Your task to perform on an android device: Go to Amazon Image 0: 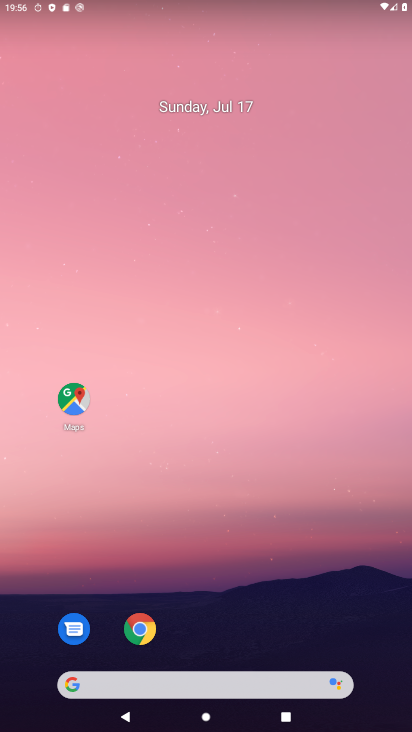
Step 0: drag from (278, 649) to (296, 141)
Your task to perform on an android device: Go to Amazon Image 1: 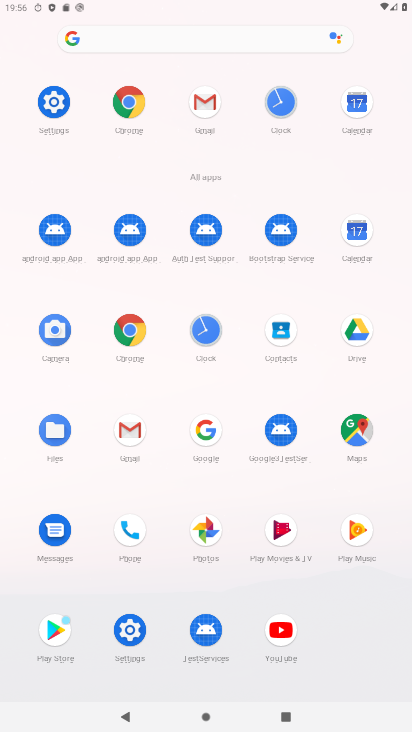
Step 1: click (121, 328)
Your task to perform on an android device: Go to Amazon Image 2: 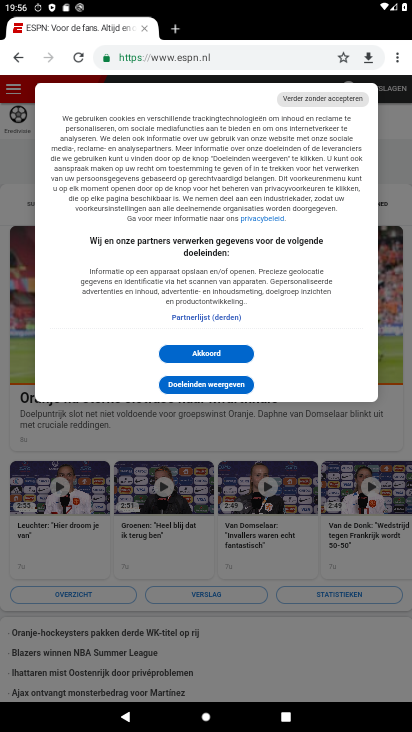
Step 2: click (242, 52)
Your task to perform on an android device: Go to Amazon Image 3: 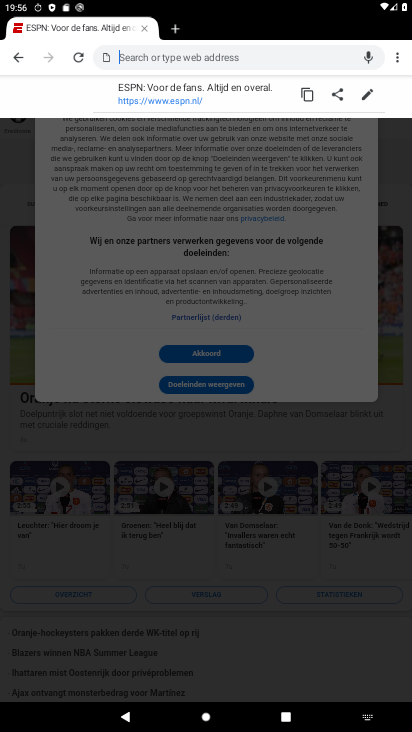
Step 3: type "amazon"
Your task to perform on an android device: Go to Amazon Image 4: 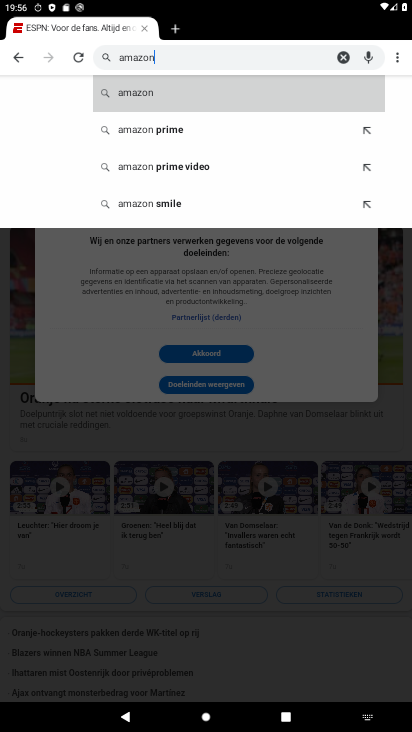
Step 4: click (149, 94)
Your task to perform on an android device: Go to Amazon Image 5: 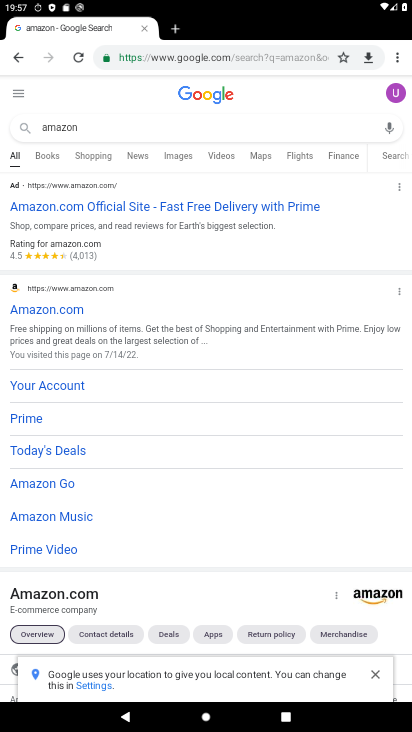
Step 5: click (55, 309)
Your task to perform on an android device: Go to Amazon Image 6: 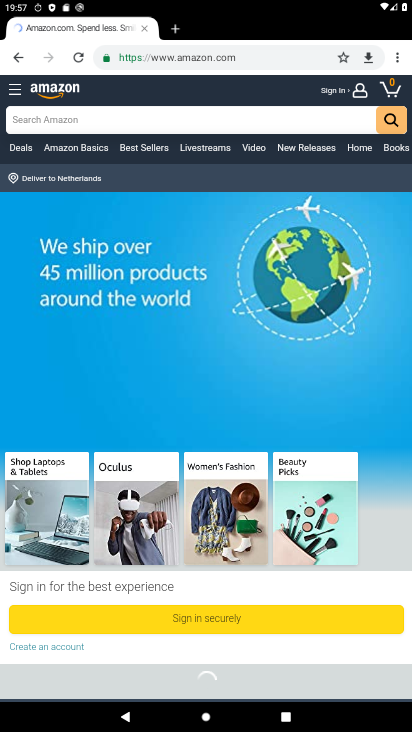
Step 6: task complete